Your task to perform on an android device: star an email in the gmail app Image 0: 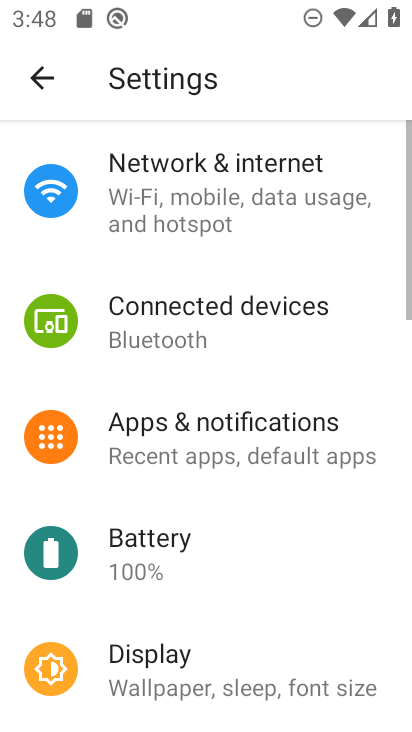
Step 0: press back button
Your task to perform on an android device: star an email in the gmail app Image 1: 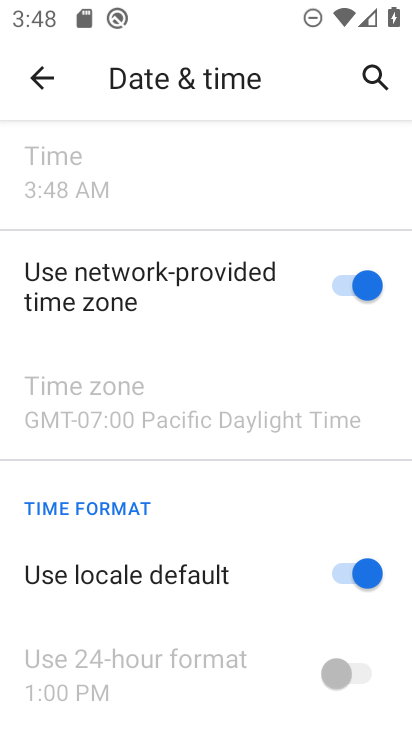
Step 1: press back button
Your task to perform on an android device: star an email in the gmail app Image 2: 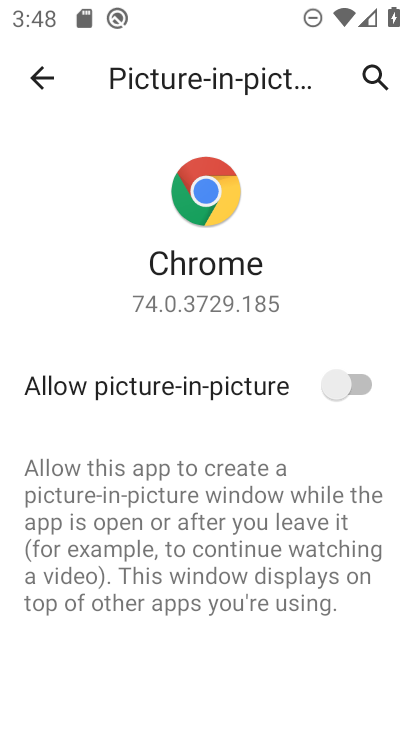
Step 2: press back button
Your task to perform on an android device: star an email in the gmail app Image 3: 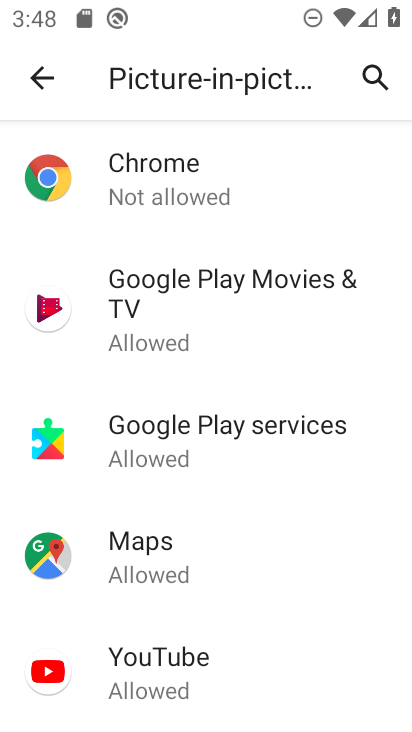
Step 3: press back button
Your task to perform on an android device: star an email in the gmail app Image 4: 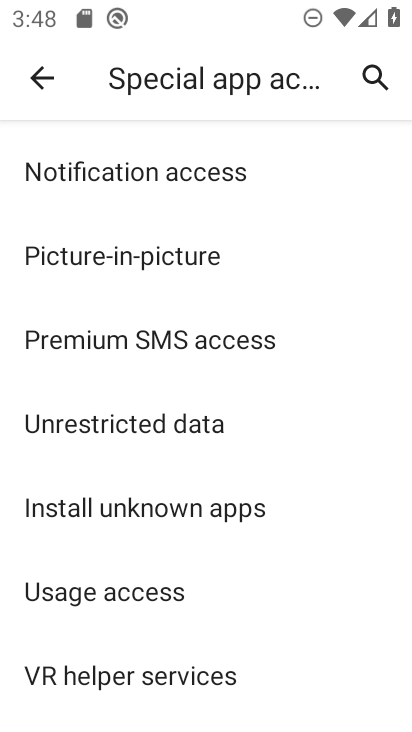
Step 4: press back button
Your task to perform on an android device: star an email in the gmail app Image 5: 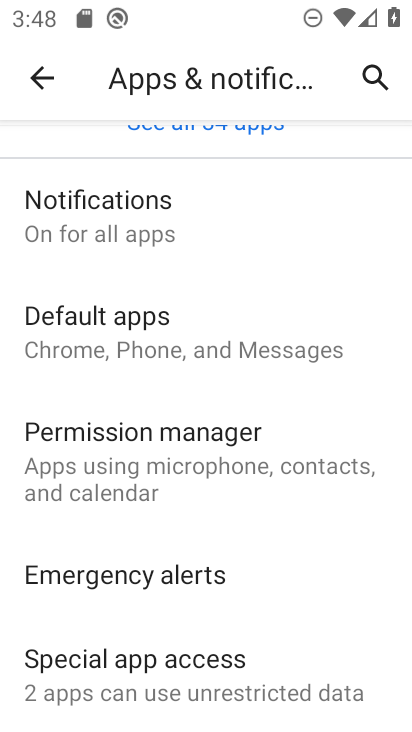
Step 5: press back button
Your task to perform on an android device: star an email in the gmail app Image 6: 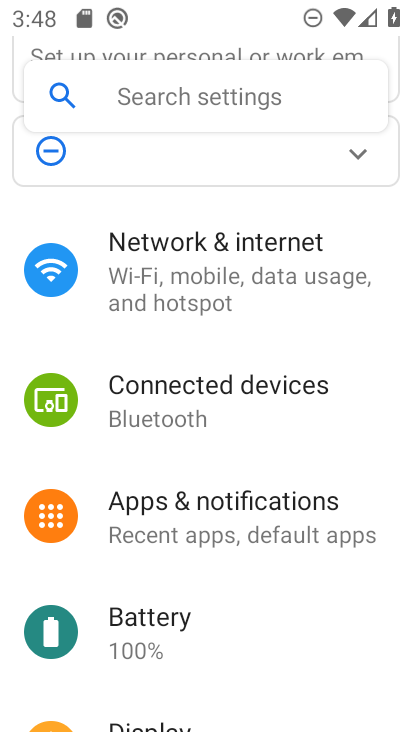
Step 6: press back button
Your task to perform on an android device: star an email in the gmail app Image 7: 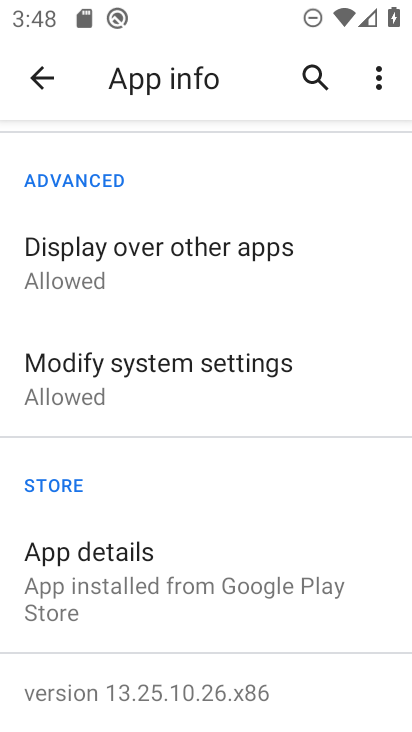
Step 7: press back button
Your task to perform on an android device: star an email in the gmail app Image 8: 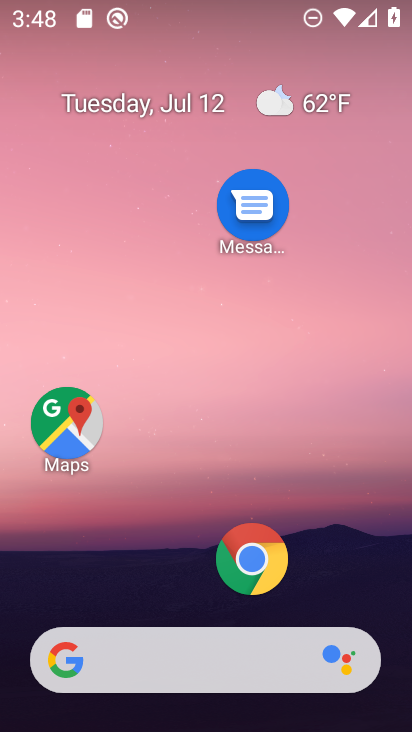
Step 8: drag from (153, 575) to (266, 14)
Your task to perform on an android device: star an email in the gmail app Image 9: 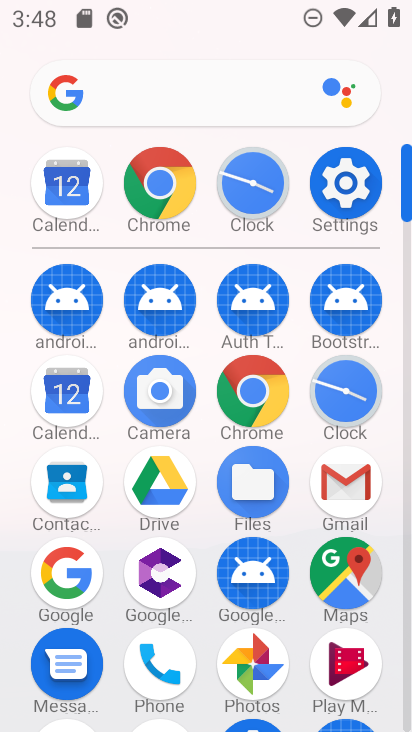
Step 9: click (338, 483)
Your task to perform on an android device: star an email in the gmail app Image 10: 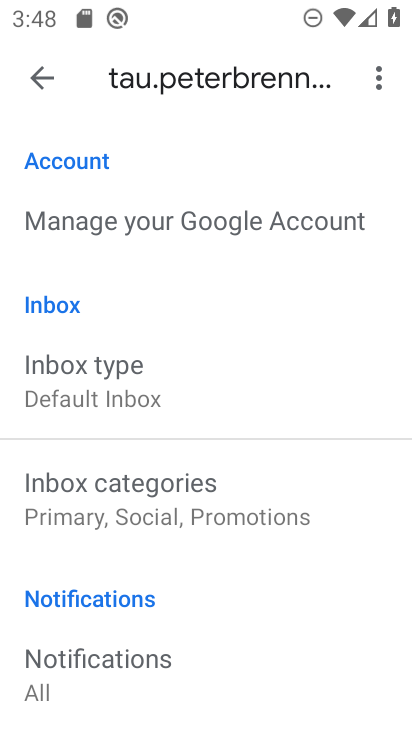
Step 10: click (33, 64)
Your task to perform on an android device: star an email in the gmail app Image 11: 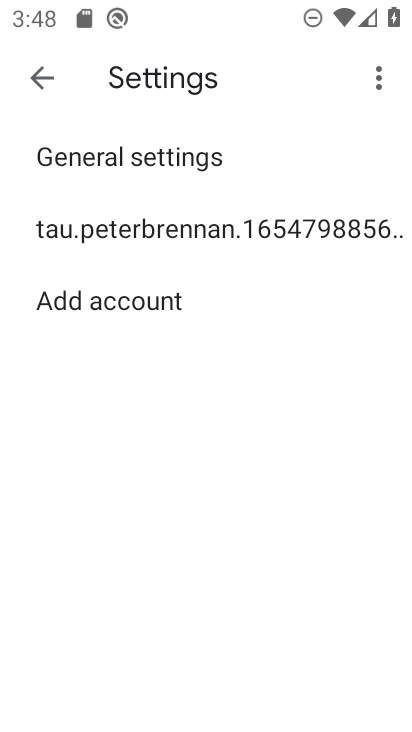
Step 11: click (27, 72)
Your task to perform on an android device: star an email in the gmail app Image 12: 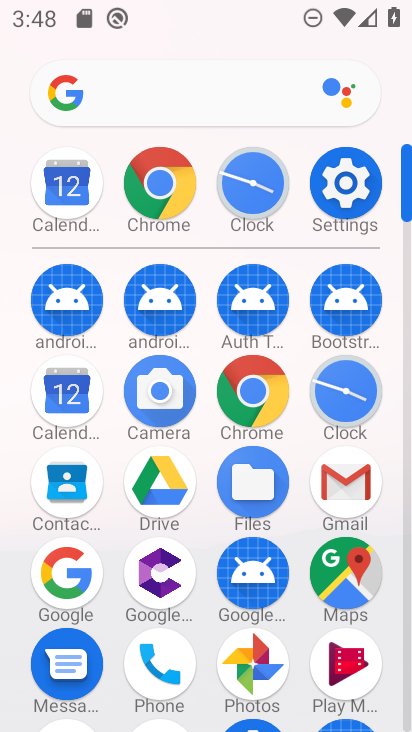
Step 12: click (323, 484)
Your task to perform on an android device: star an email in the gmail app Image 13: 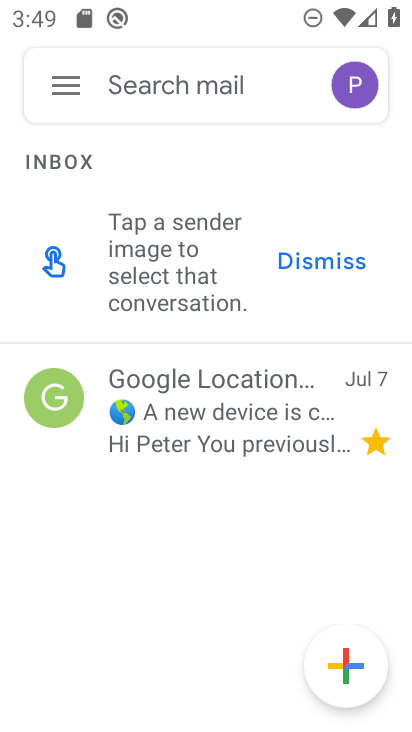
Step 13: task complete